Your task to perform on an android device: check out phone information Image 0: 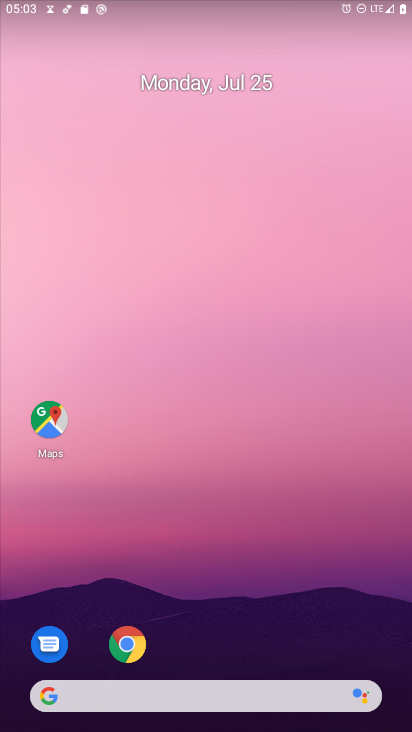
Step 0: press home button
Your task to perform on an android device: check out phone information Image 1: 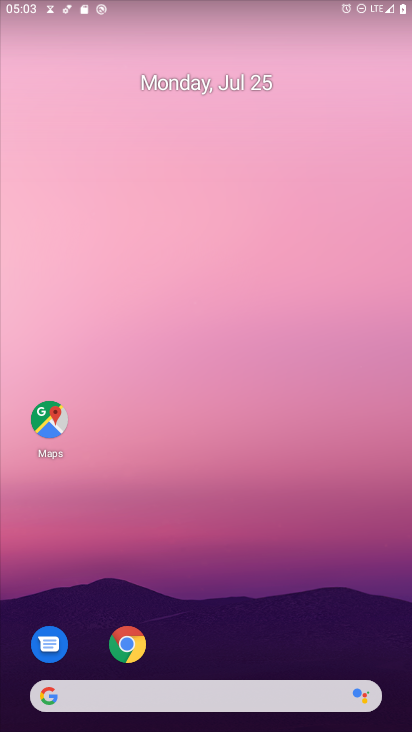
Step 1: drag from (319, 601) to (304, 113)
Your task to perform on an android device: check out phone information Image 2: 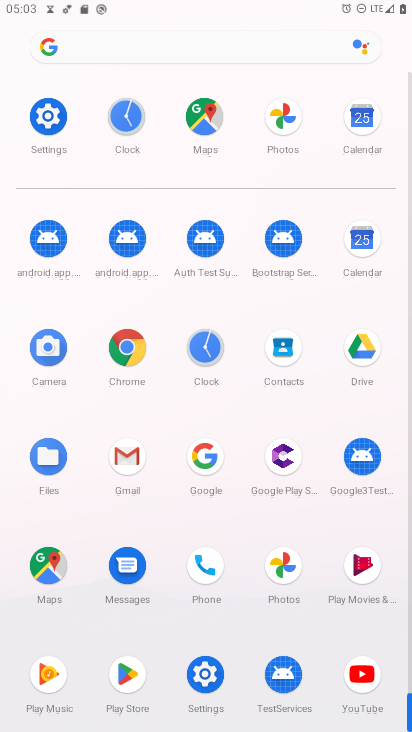
Step 2: click (51, 118)
Your task to perform on an android device: check out phone information Image 3: 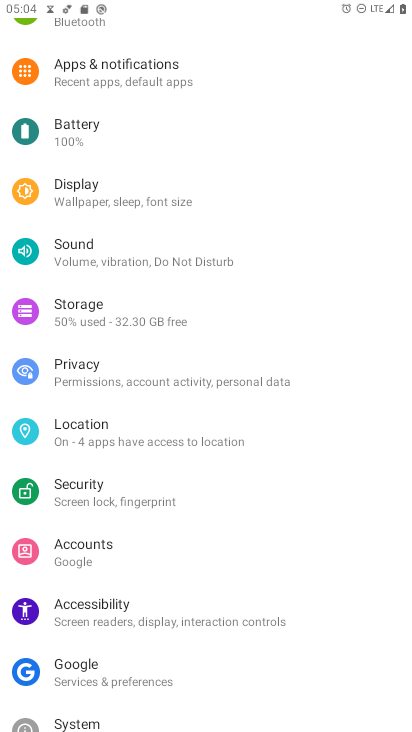
Step 3: drag from (205, 700) to (293, 188)
Your task to perform on an android device: check out phone information Image 4: 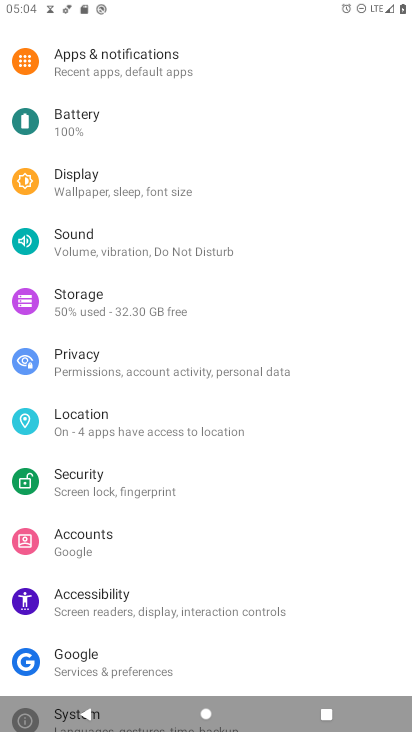
Step 4: drag from (197, 640) to (296, 101)
Your task to perform on an android device: check out phone information Image 5: 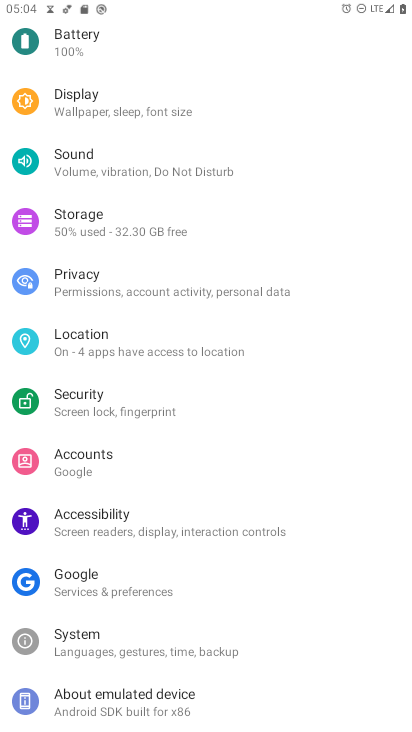
Step 5: click (99, 698)
Your task to perform on an android device: check out phone information Image 6: 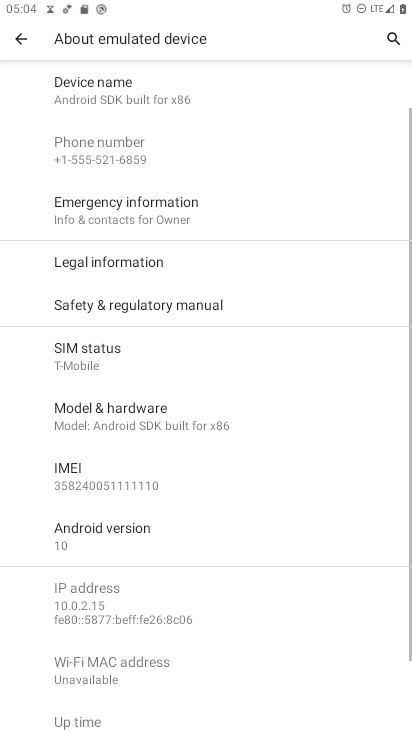
Step 6: task complete